Your task to perform on an android device: turn off notifications settings in the gmail app Image 0: 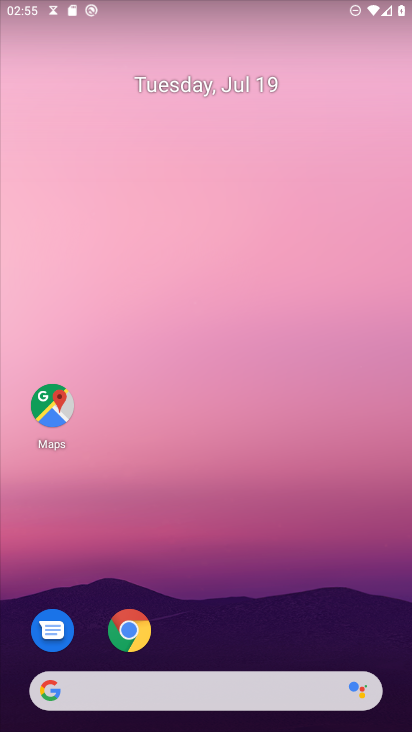
Step 0: drag from (162, 689) to (258, 329)
Your task to perform on an android device: turn off notifications settings in the gmail app Image 1: 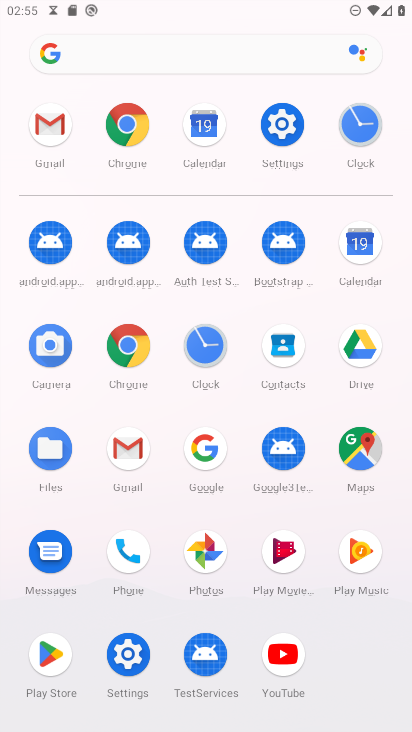
Step 1: click (53, 129)
Your task to perform on an android device: turn off notifications settings in the gmail app Image 2: 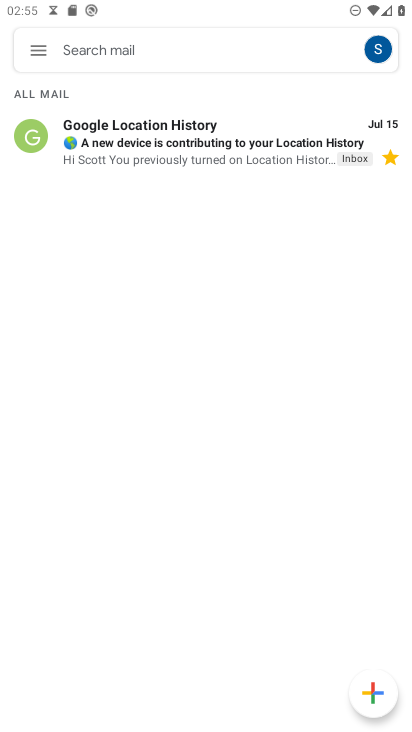
Step 2: click (39, 51)
Your task to perform on an android device: turn off notifications settings in the gmail app Image 3: 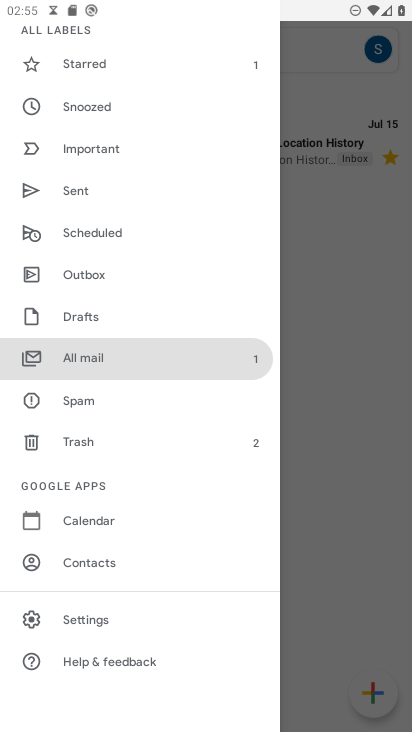
Step 3: click (116, 624)
Your task to perform on an android device: turn off notifications settings in the gmail app Image 4: 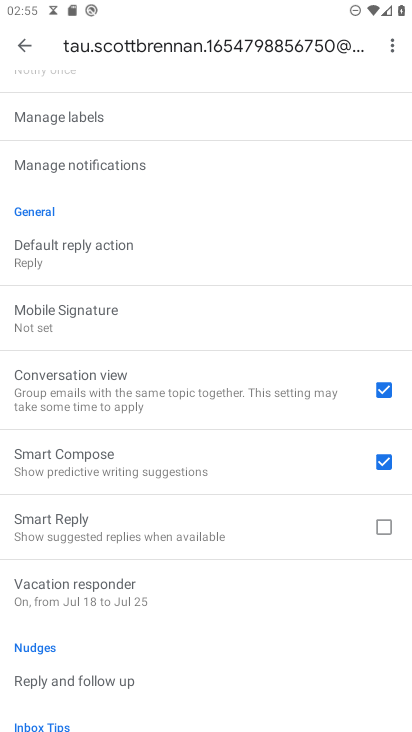
Step 4: drag from (216, 155) to (176, 653)
Your task to perform on an android device: turn off notifications settings in the gmail app Image 5: 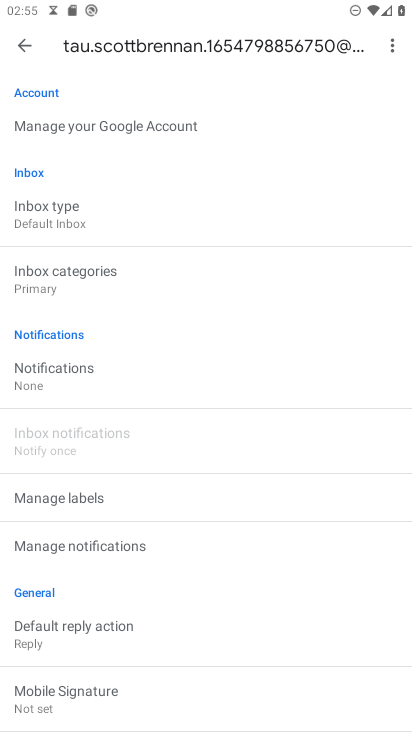
Step 5: click (62, 375)
Your task to perform on an android device: turn off notifications settings in the gmail app Image 6: 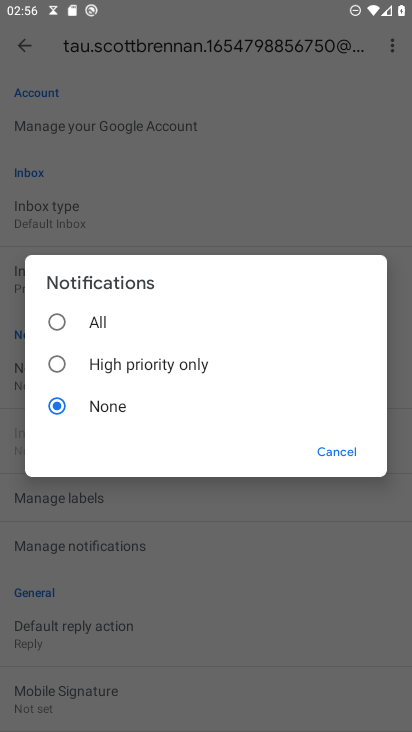
Step 6: task complete